Your task to perform on an android device: Open Chrome and go to settings Image 0: 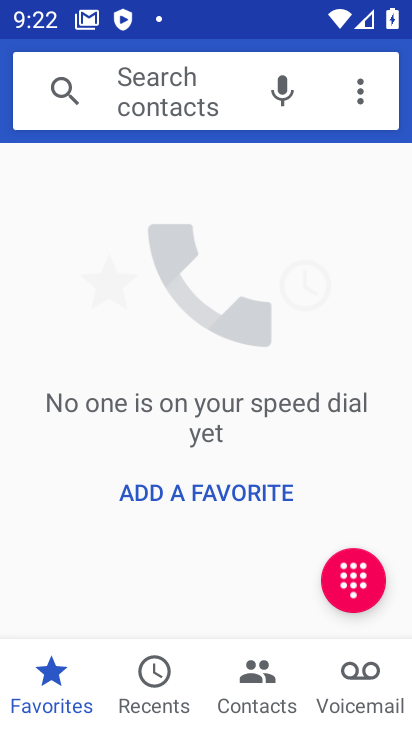
Step 0: press back button
Your task to perform on an android device: Open Chrome and go to settings Image 1: 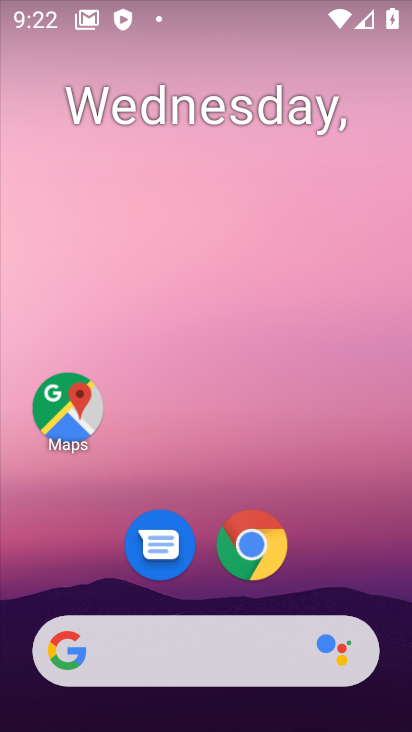
Step 1: click (247, 543)
Your task to perform on an android device: Open Chrome and go to settings Image 2: 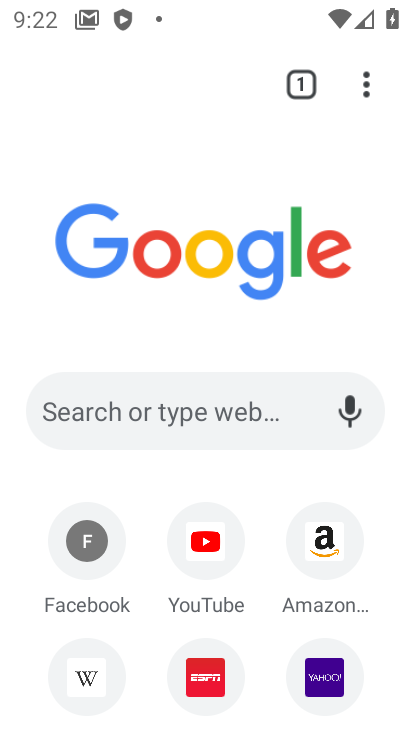
Step 2: click (363, 82)
Your task to perform on an android device: Open Chrome and go to settings Image 3: 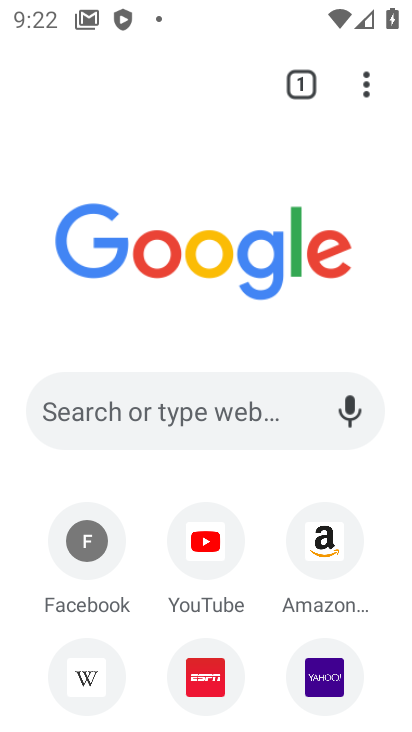
Step 3: click (372, 82)
Your task to perform on an android device: Open Chrome and go to settings Image 4: 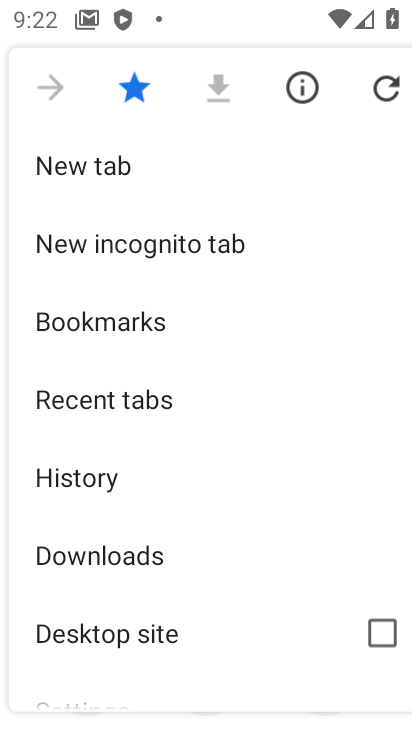
Step 4: drag from (184, 497) to (194, 415)
Your task to perform on an android device: Open Chrome and go to settings Image 5: 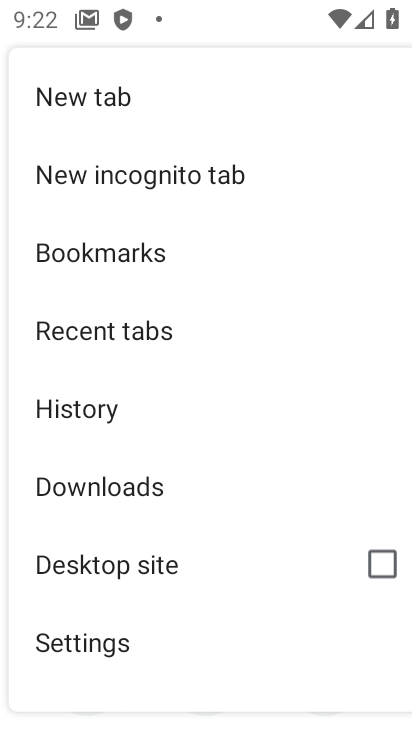
Step 5: drag from (167, 531) to (219, 460)
Your task to perform on an android device: Open Chrome and go to settings Image 6: 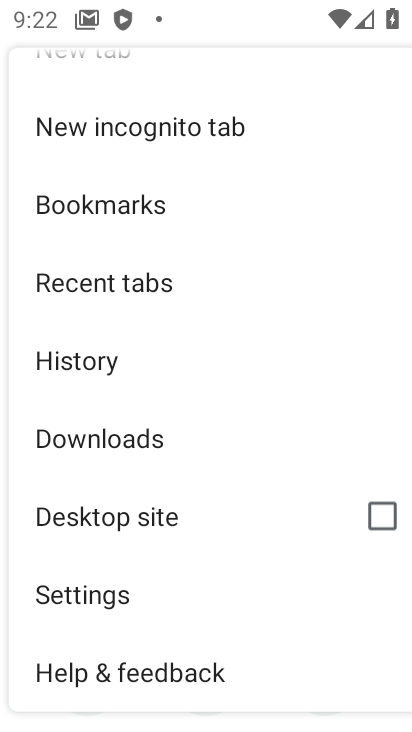
Step 6: click (86, 593)
Your task to perform on an android device: Open Chrome and go to settings Image 7: 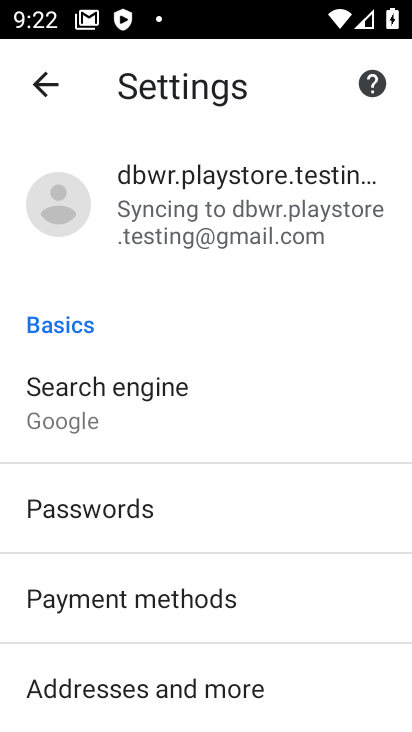
Step 7: task complete